Your task to perform on an android device: Go to network settings Image 0: 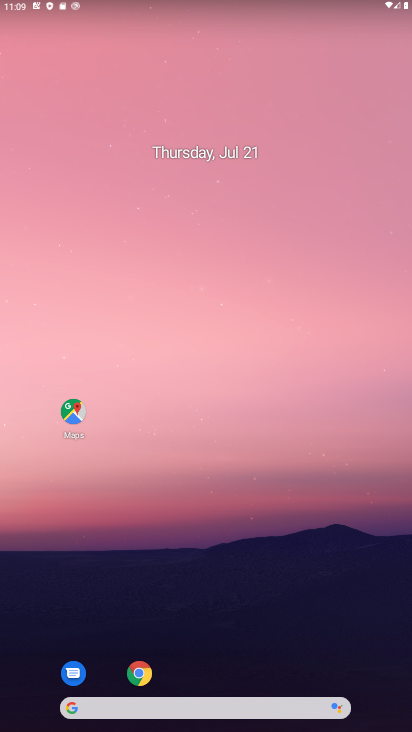
Step 0: drag from (197, 655) to (166, 157)
Your task to perform on an android device: Go to network settings Image 1: 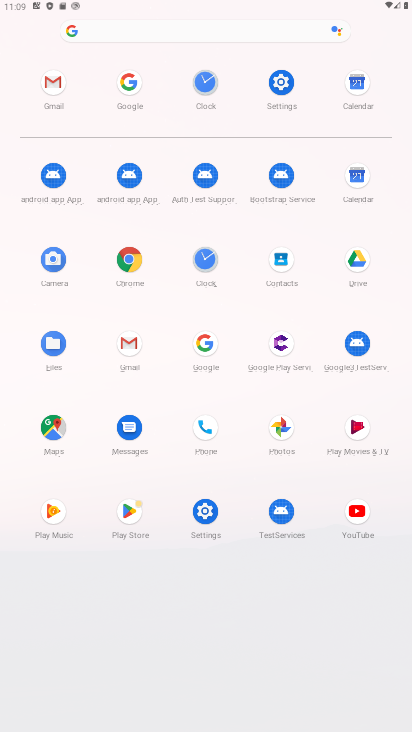
Step 1: click (282, 79)
Your task to perform on an android device: Go to network settings Image 2: 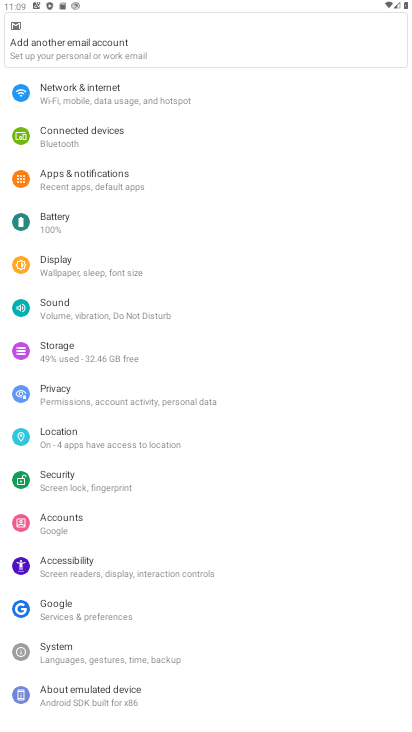
Step 2: click (142, 93)
Your task to perform on an android device: Go to network settings Image 3: 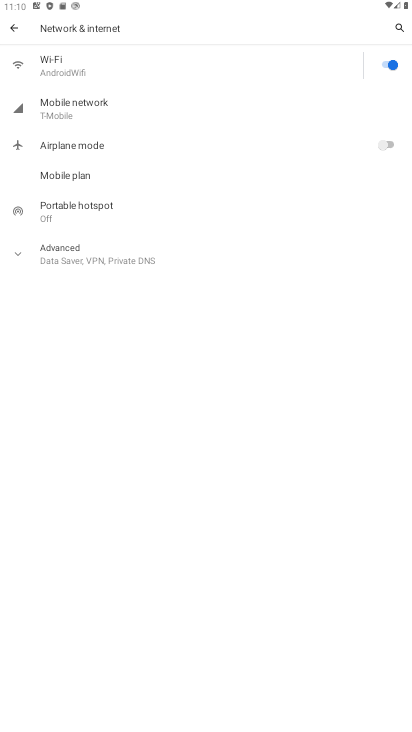
Step 3: task complete